Your task to perform on an android device: Open Yahoo.com Image 0: 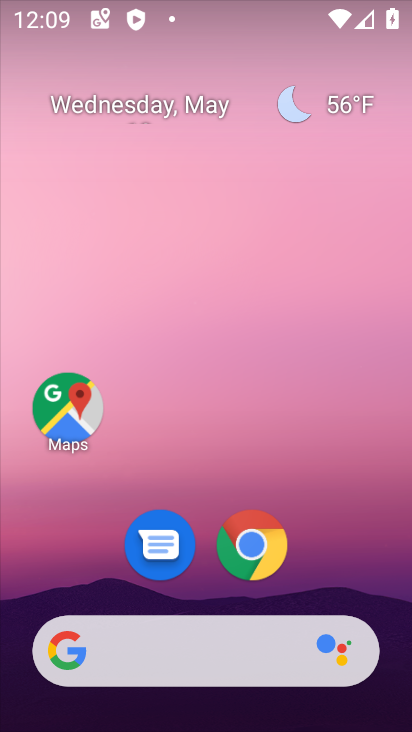
Step 0: click (255, 543)
Your task to perform on an android device: Open Yahoo.com Image 1: 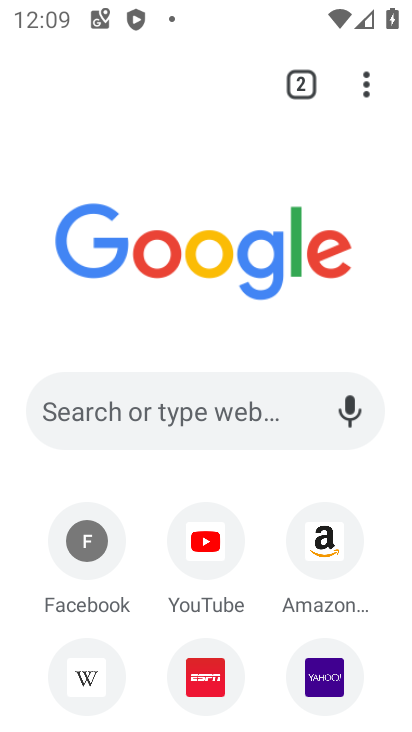
Step 1: click (190, 411)
Your task to perform on an android device: Open Yahoo.com Image 2: 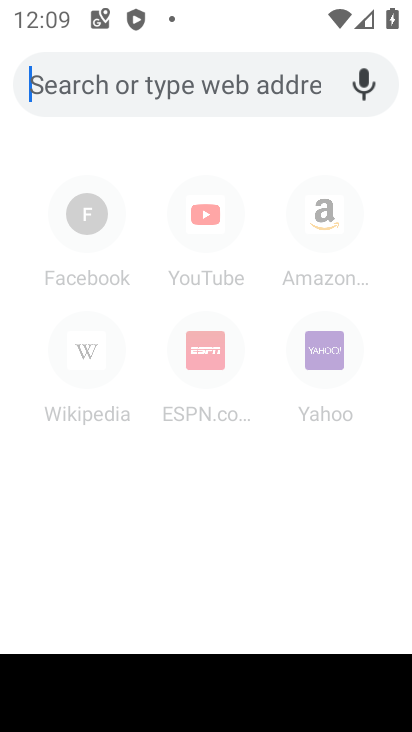
Step 2: type "Yahoo.com"
Your task to perform on an android device: Open Yahoo.com Image 3: 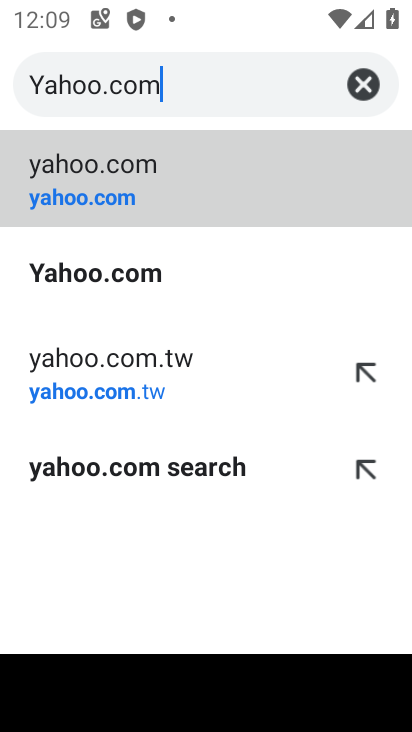
Step 3: click (72, 281)
Your task to perform on an android device: Open Yahoo.com Image 4: 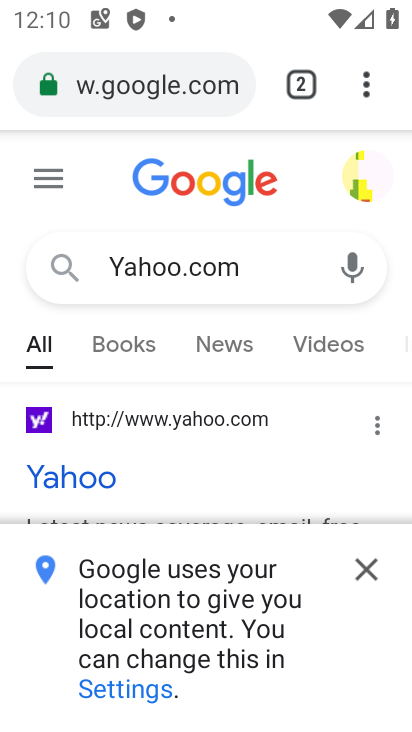
Step 4: click (158, 420)
Your task to perform on an android device: Open Yahoo.com Image 5: 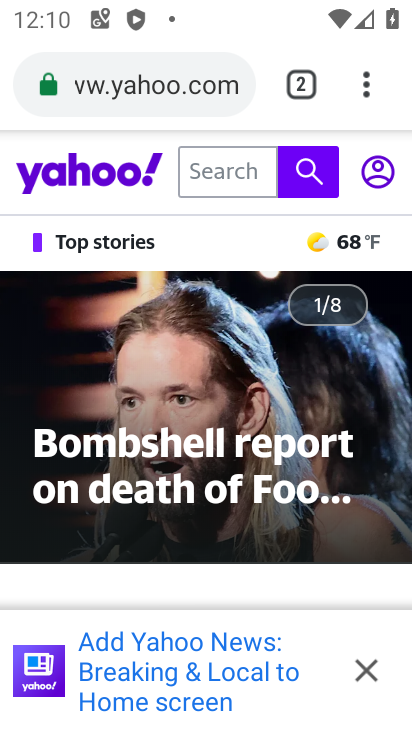
Step 5: task complete